Your task to perform on an android device: turn on the 12-hour format for clock Image 0: 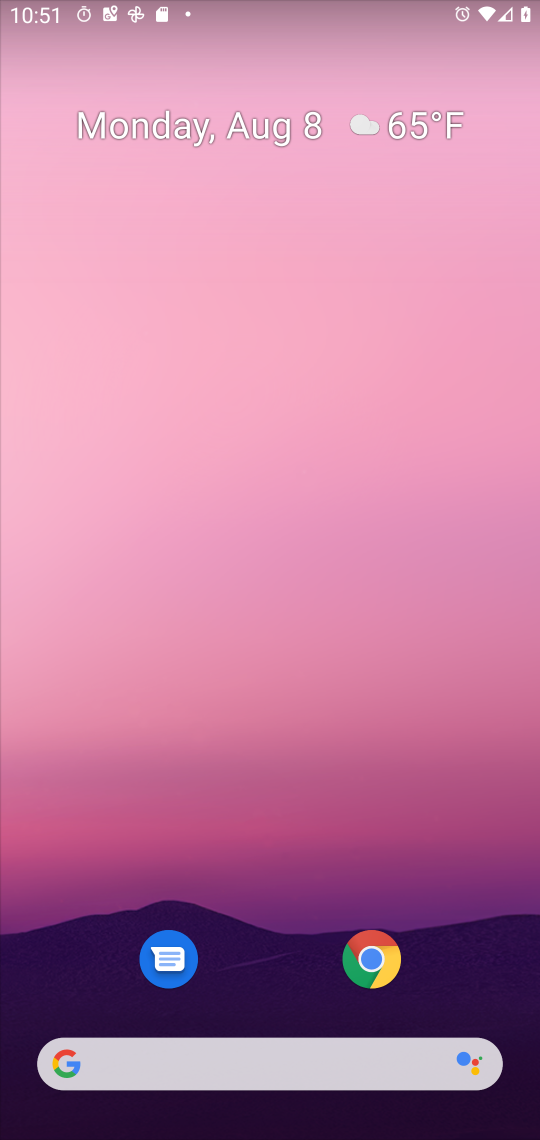
Step 0: drag from (467, 821) to (283, 101)
Your task to perform on an android device: turn on the 12-hour format for clock Image 1: 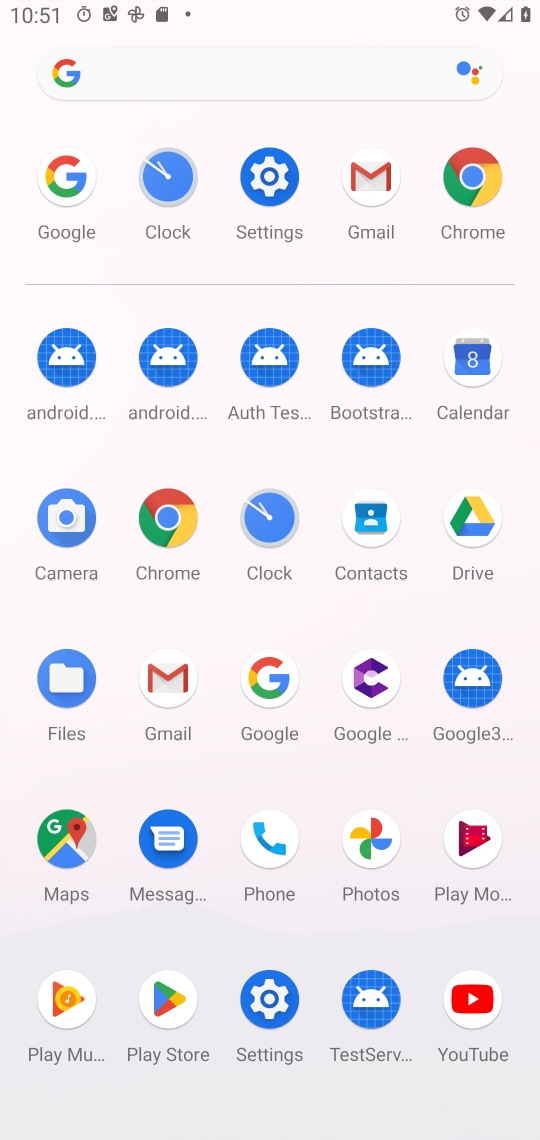
Step 1: click (263, 526)
Your task to perform on an android device: turn on the 12-hour format for clock Image 2: 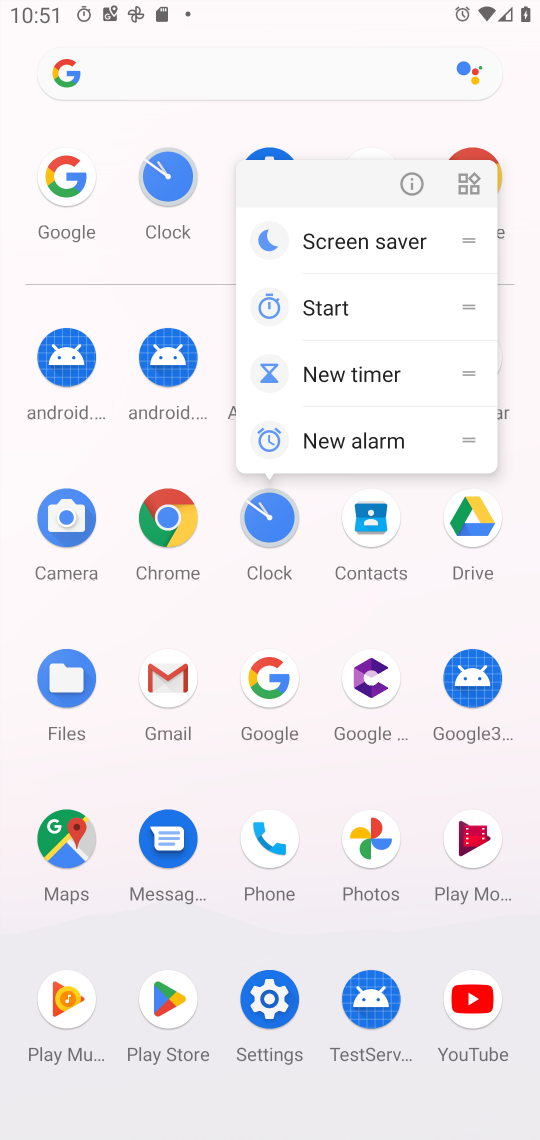
Step 2: click (276, 522)
Your task to perform on an android device: turn on the 12-hour format for clock Image 3: 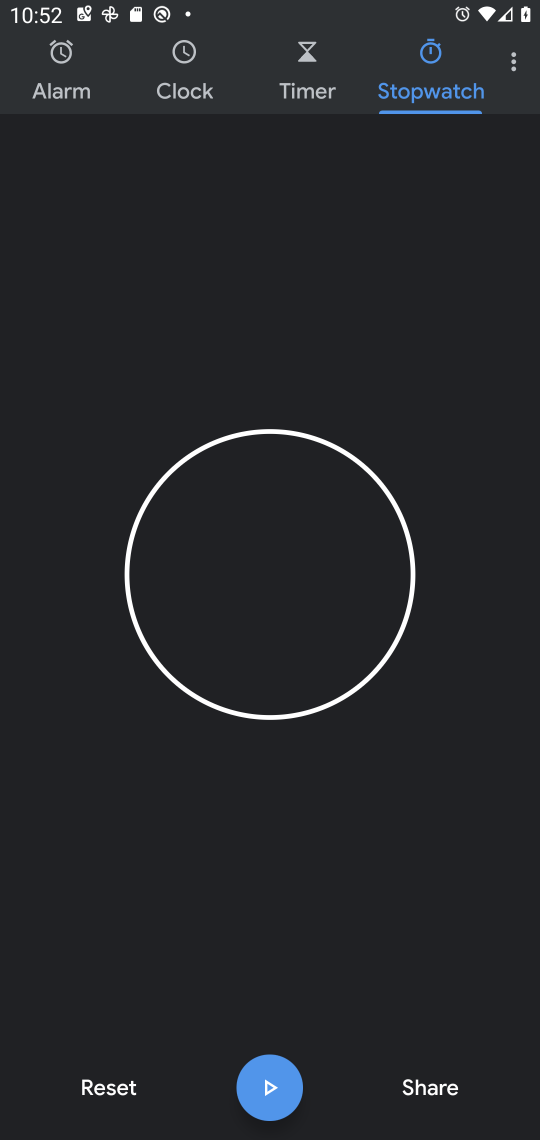
Step 3: click (491, 58)
Your task to perform on an android device: turn on the 12-hour format for clock Image 4: 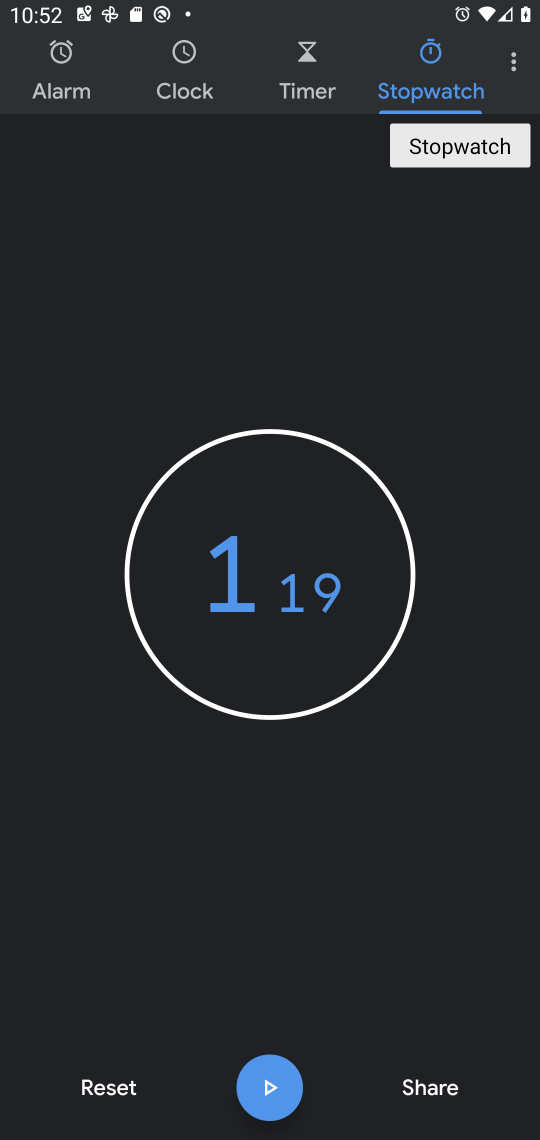
Step 4: click (512, 61)
Your task to perform on an android device: turn on the 12-hour format for clock Image 5: 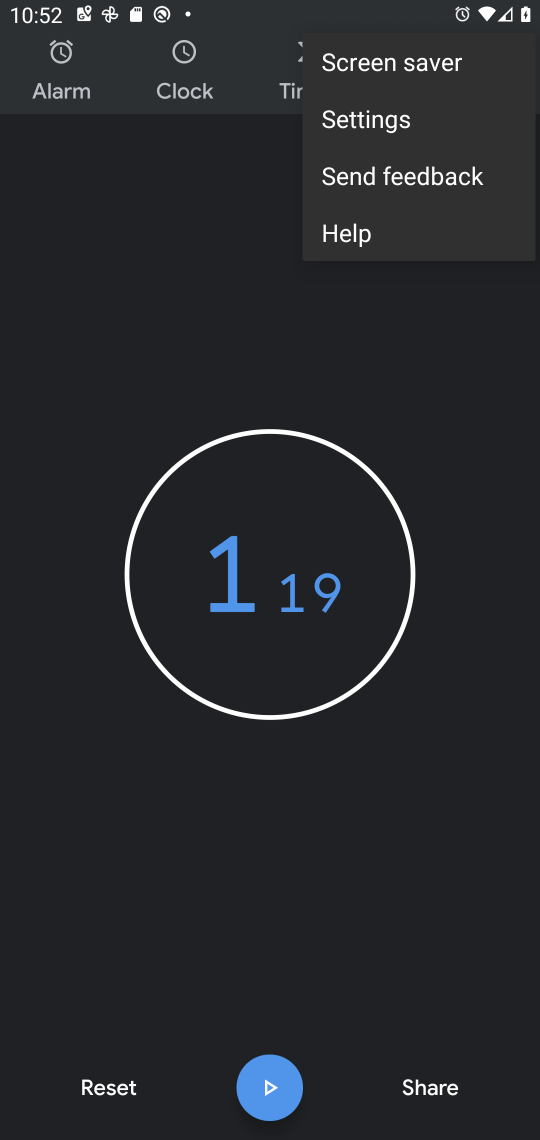
Step 5: click (363, 110)
Your task to perform on an android device: turn on the 12-hour format for clock Image 6: 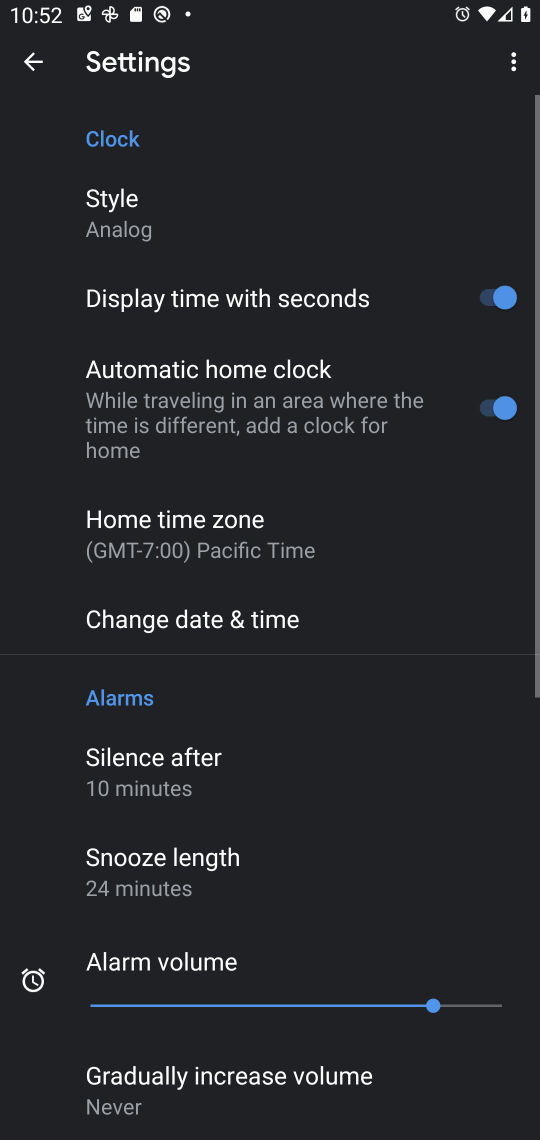
Step 6: click (232, 626)
Your task to perform on an android device: turn on the 12-hour format for clock Image 7: 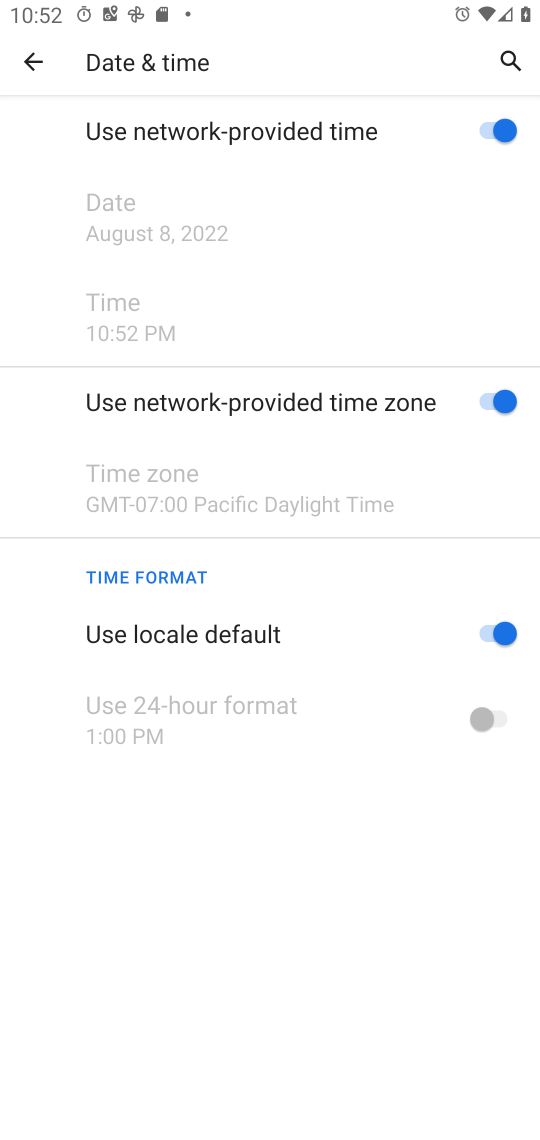
Step 7: task complete